Your task to perform on an android device: turn on wifi Image 0: 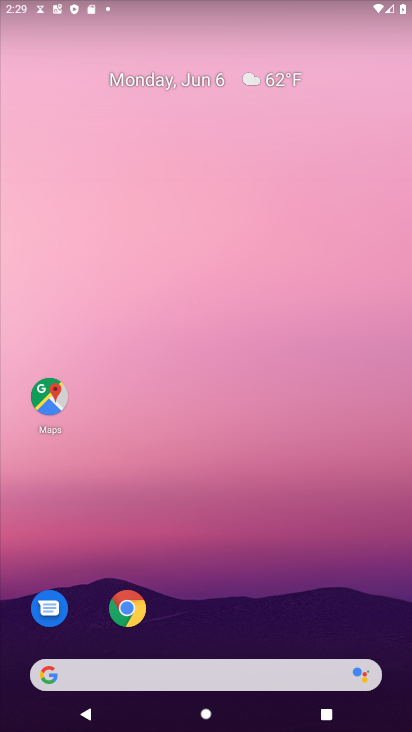
Step 0: drag from (296, 592) to (347, 75)
Your task to perform on an android device: turn on wifi Image 1: 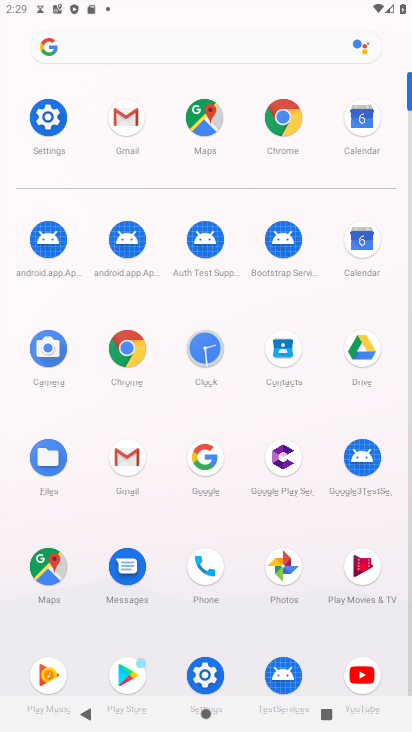
Step 1: click (35, 115)
Your task to perform on an android device: turn on wifi Image 2: 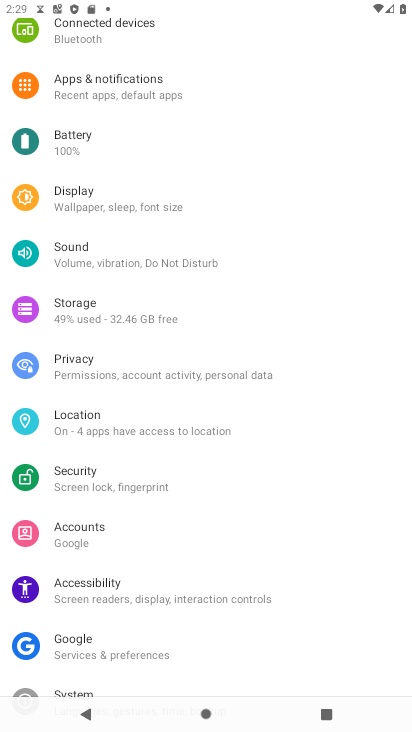
Step 2: drag from (96, 129) to (170, 480)
Your task to perform on an android device: turn on wifi Image 3: 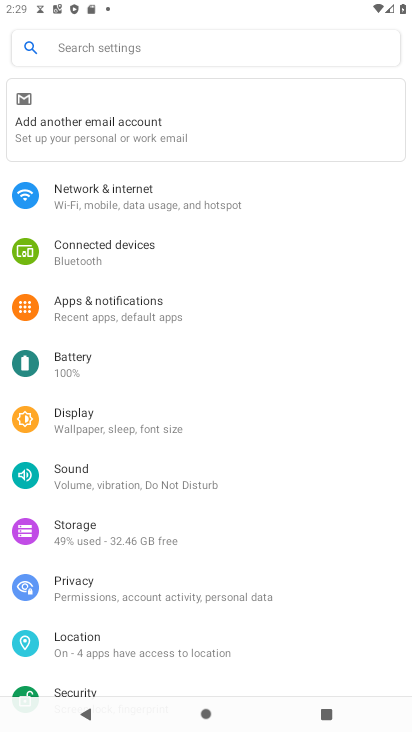
Step 3: click (122, 190)
Your task to perform on an android device: turn on wifi Image 4: 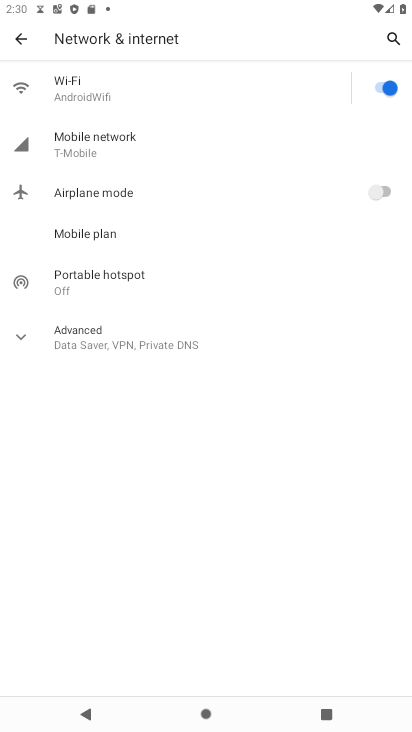
Step 4: click (69, 80)
Your task to perform on an android device: turn on wifi Image 5: 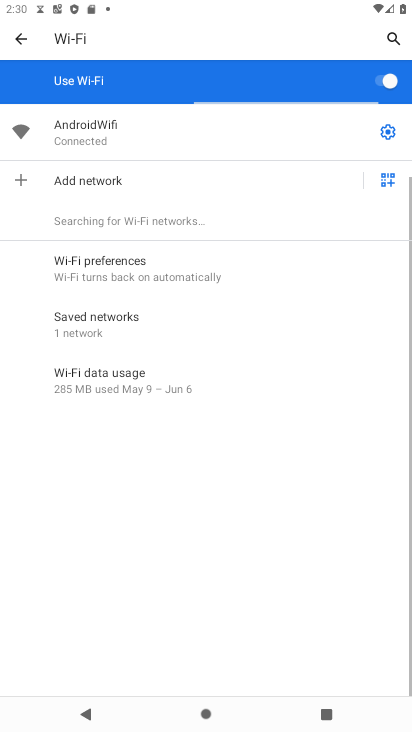
Step 5: task complete